Your task to perform on an android device: Open maps Image 0: 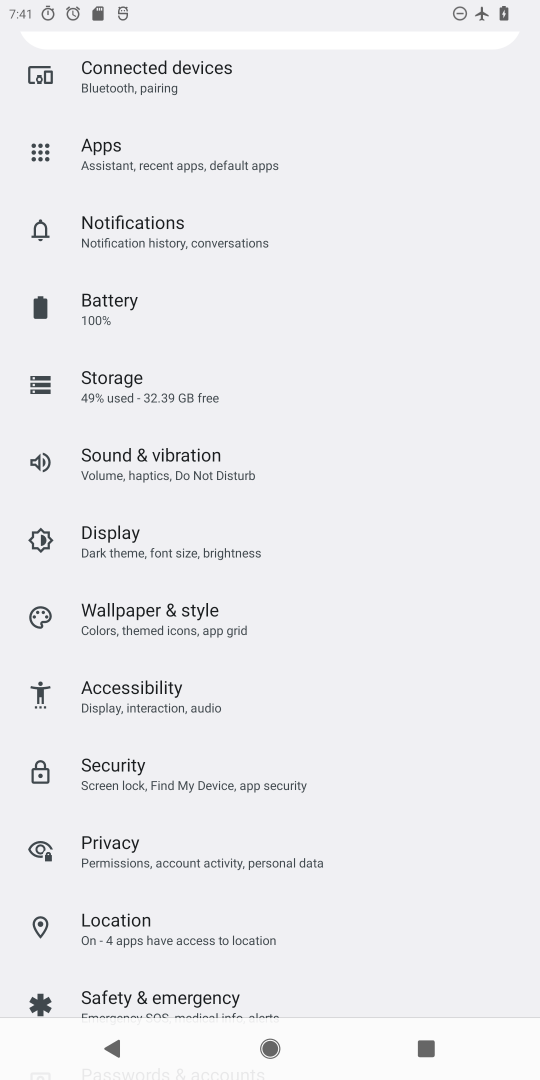
Step 0: press home button
Your task to perform on an android device: Open maps Image 1: 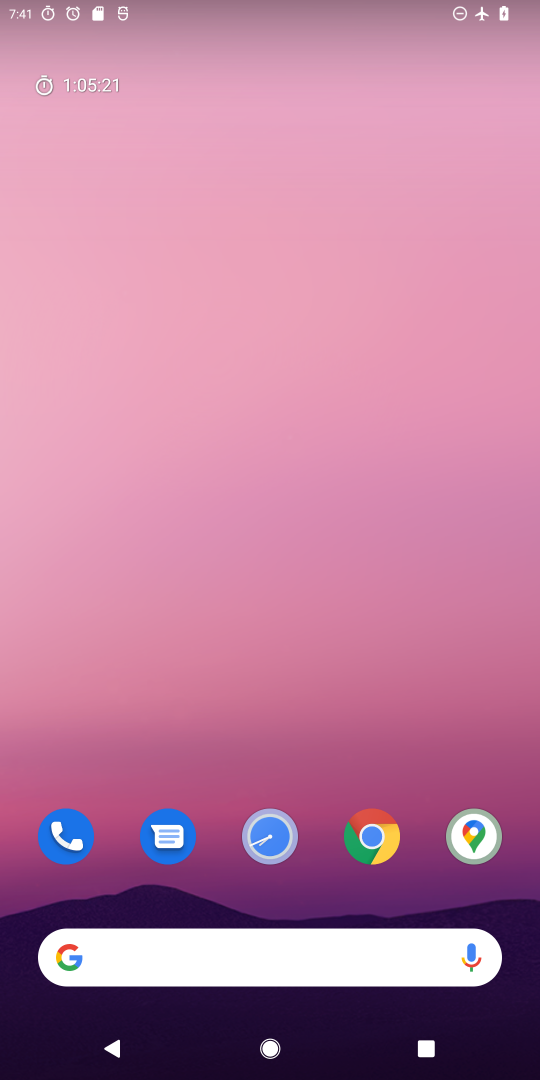
Step 1: drag from (318, 622) to (313, 521)
Your task to perform on an android device: Open maps Image 2: 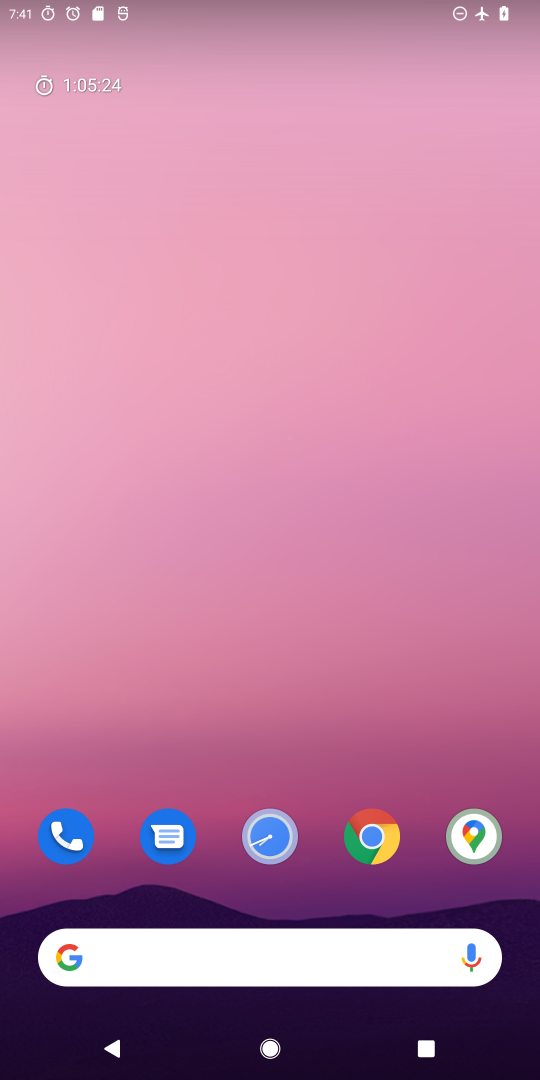
Step 2: drag from (307, 609) to (341, 3)
Your task to perform on an android device: Open maps Image 3: 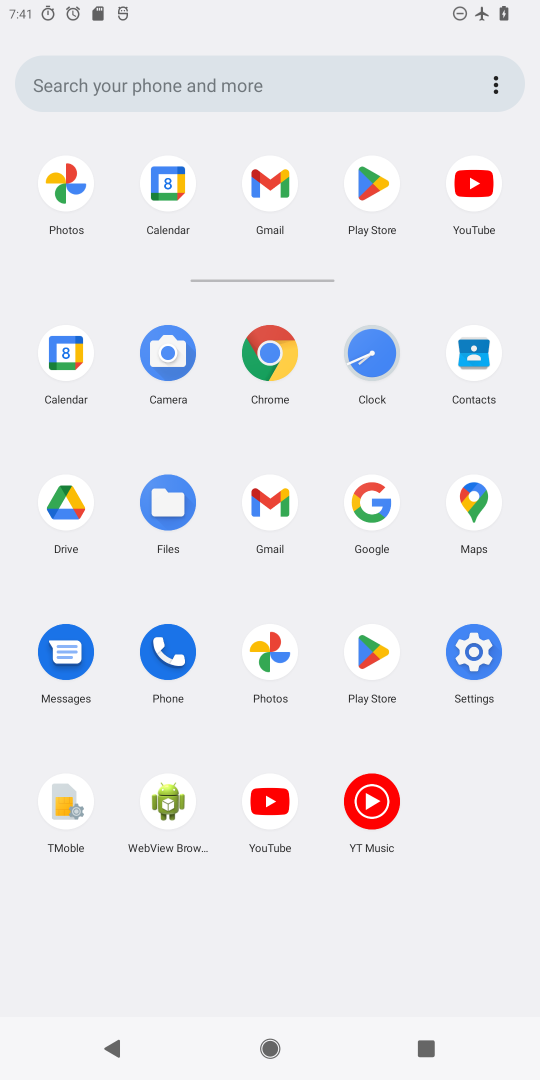
Step 3: click (477, 540)
Your task to perform on an android device: Open maps Image 4: 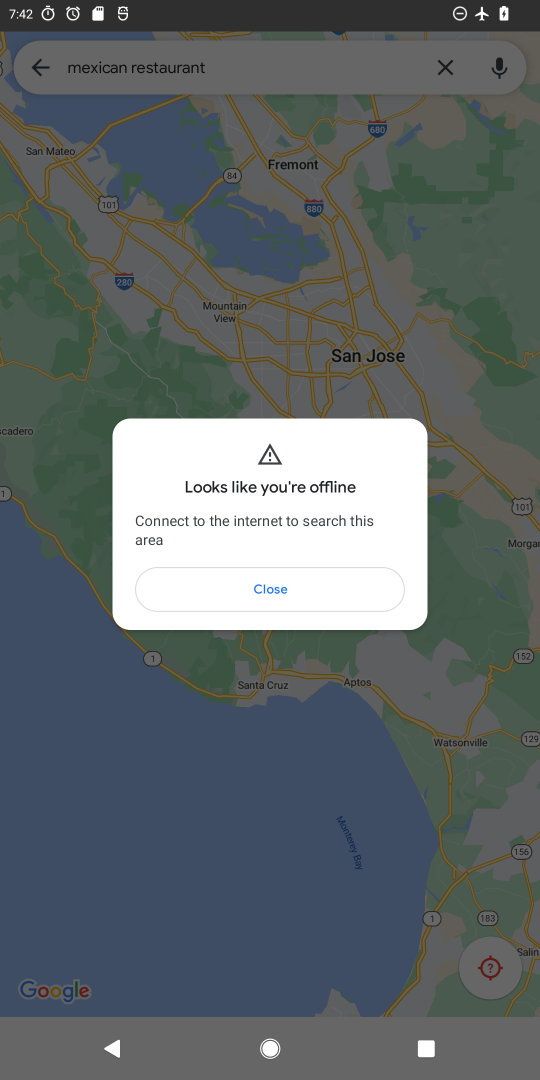
Step 4: task complete